Your task to perform on an android device: clear history in the chrome app Image 0: 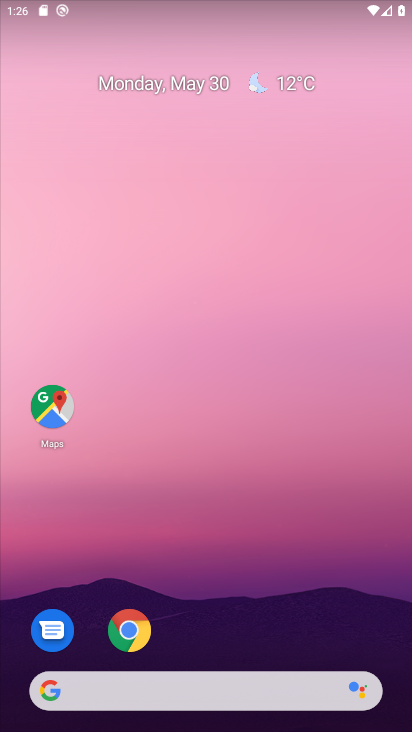
Step 0: click (140, 635)
Your task to perform on an android device: clear history in the chrome app Image 1: 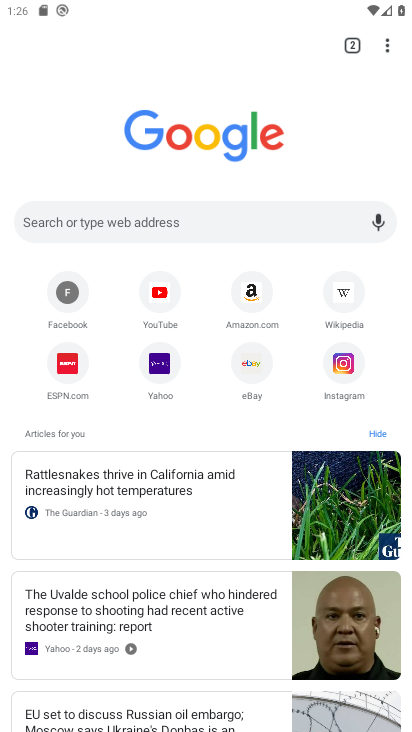
Step 1: task complete